Your task to perform on an android device: Show me popular videos on Youtube Image 0: 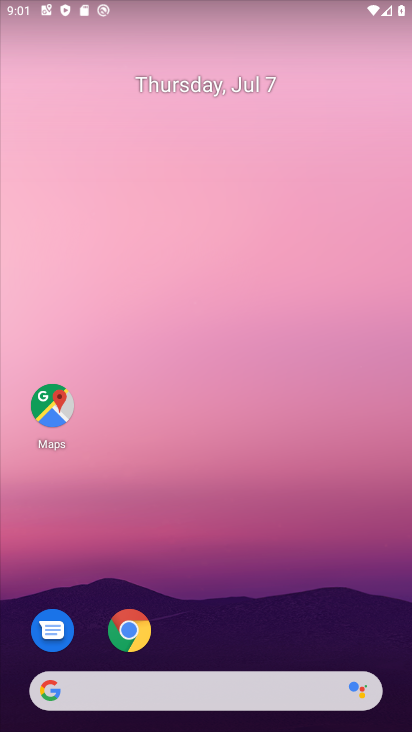
Step 0: drag from (211, 630) to (196, 169)
Your task to perform on an android device: Show me popular videos on Youtube Image 1: 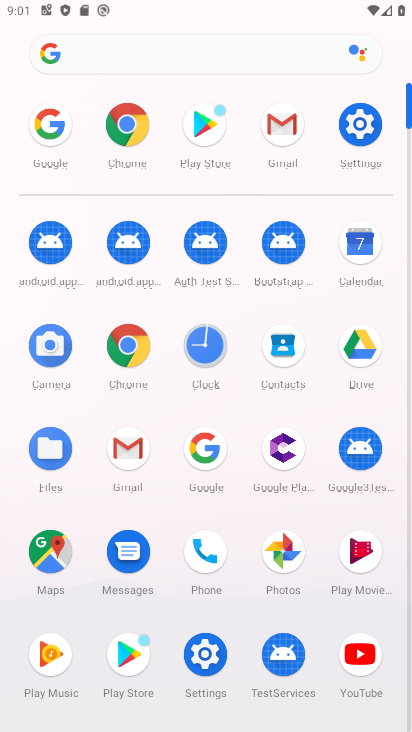
Step 1: click (363, 645)
Your task to perform on an android device: Show me popular videos on Youtube Image 2: 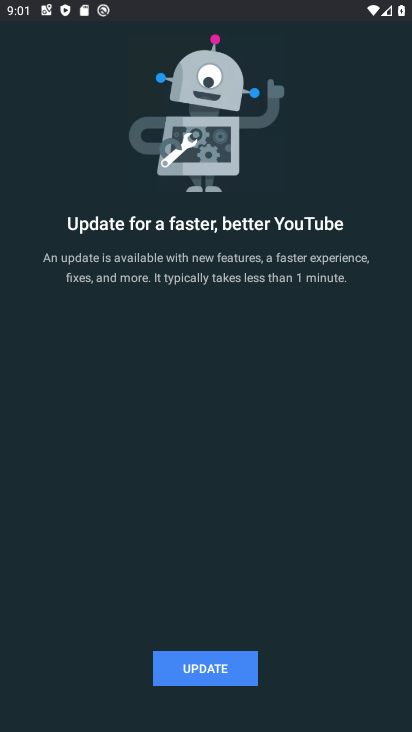
Step 2: click (197, 663)
Your task to perform on an android device: Show me popular videos on Youtube Image 3: 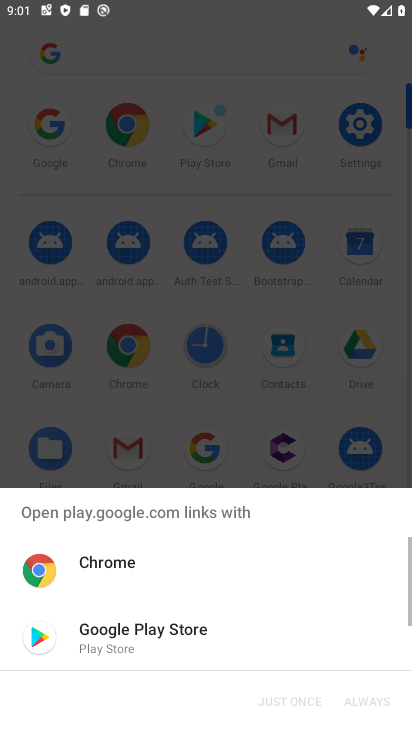
Step 3: click (185, 650)
Your task to perform on an android device: Show me popular videos on Youtube Image 4: 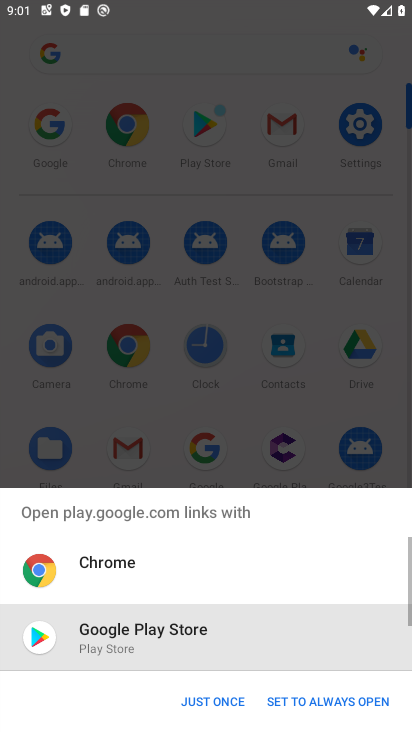
Step 4: click (202, 717)
Your task to perform on an android device: Show me popular videos on Youtube Image 5: 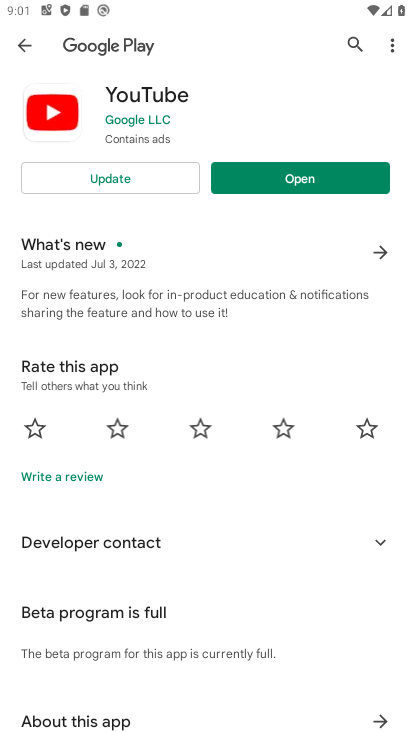
Step 5: click (176, 173)
Your task to perform on an android device: Show me popular videos on Youtube Image 6: 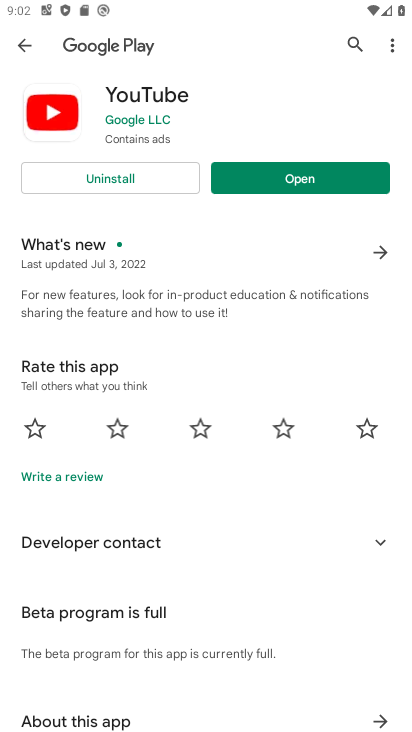
Step 6: click (301, 180)
Your task to perform on an android device: Show me popular videos on Youtube Image 7: 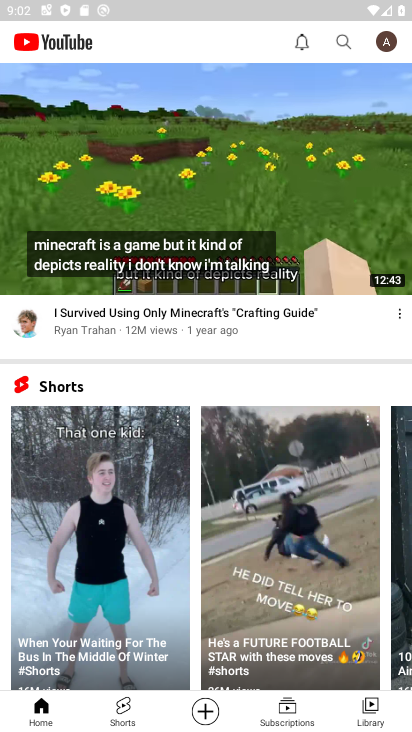
Step 7: click (340, 38)
Your task to perform on an android device: Show me popular videos on Youtube Image 8: 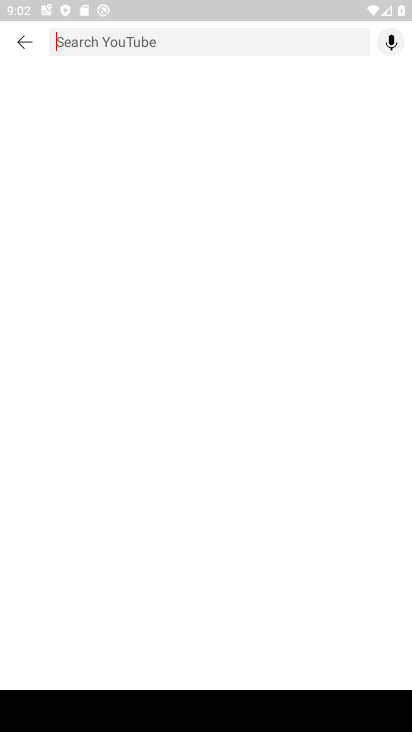
Step 8: type "popular videos"
Your task to perform on an android device: Show me popular videos on Youtube Image 9: 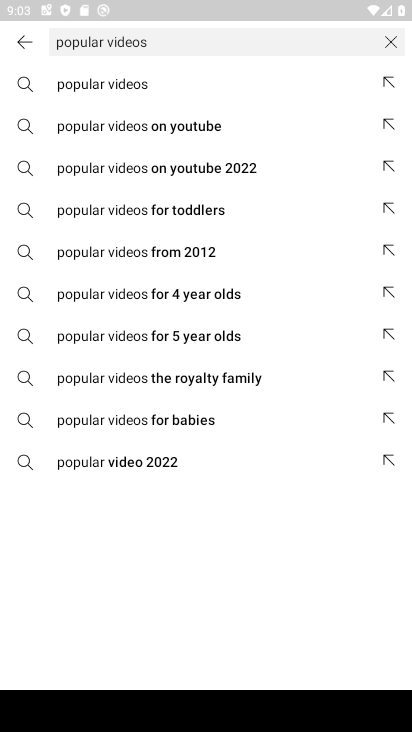
Step 9: click (164, 116)
Your task to perform on an android device: Show me popular videos on Youtube Image 10: 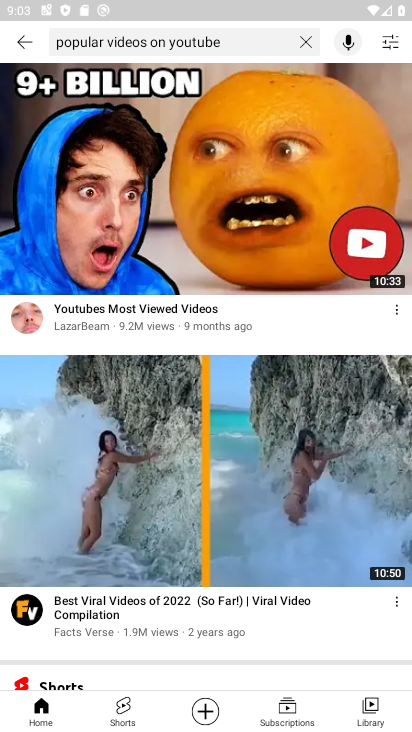
Step 10: task complete